Your task to perform on an android device: Open notification settings Image 0: 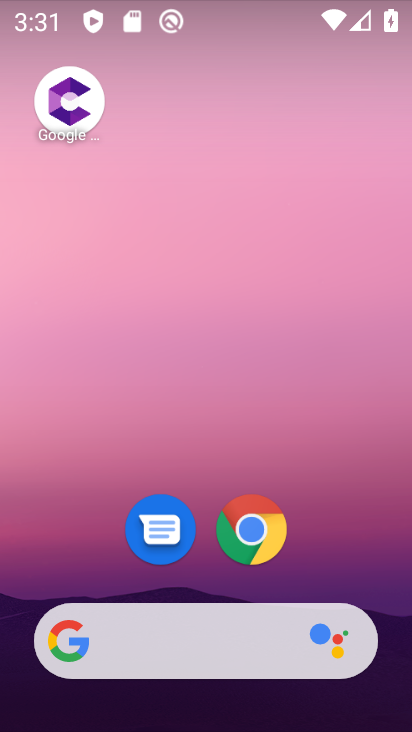
Step 0: drag from (213, 594) to (139, 11)
Your task to perform on an android device: Open notification settings Image 1: 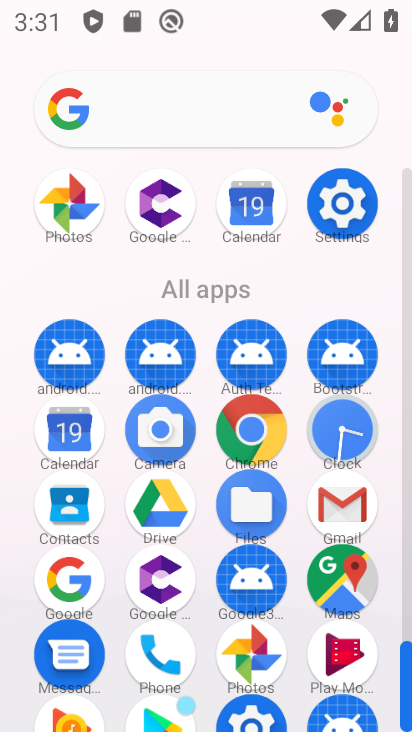
Step 1: click (329, 184)
Your task to perform on an android device: Open notification settings Image 2: 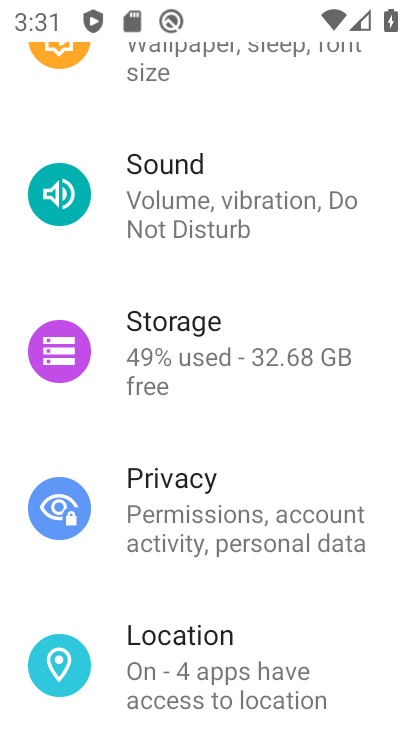
Step 2: drag from (232, 268) to (195, 695)
Your task to perform on an android device: Open notification settings Image 3: 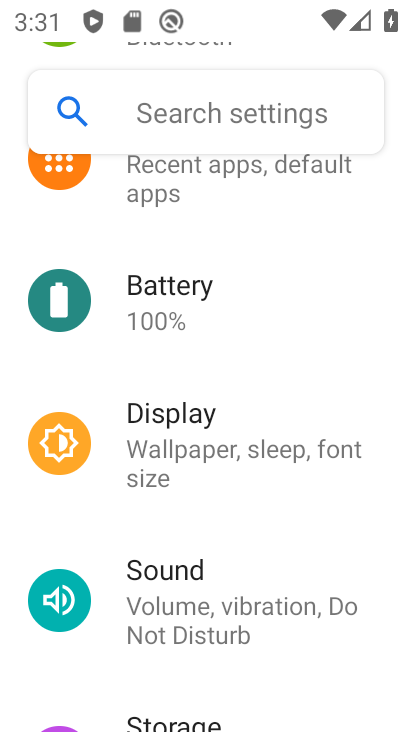
Step 3: drag from (189, 227) to (193, 619)
Your task to perform on an android device: Open notification settings Image 4: 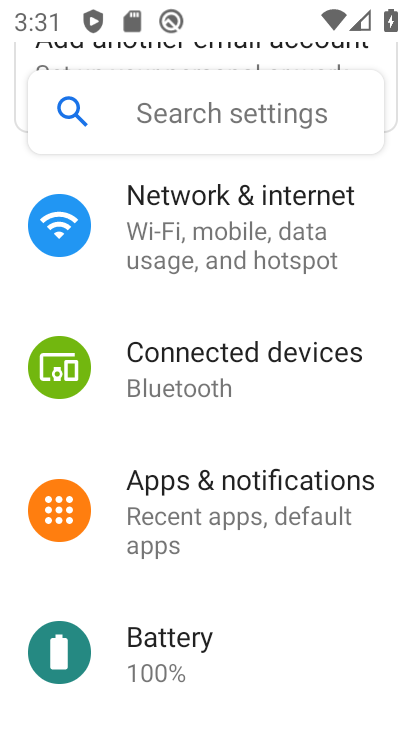
Step 4: click (210, 525)
Your task to perform on an android device: Open notification settings Image 5: 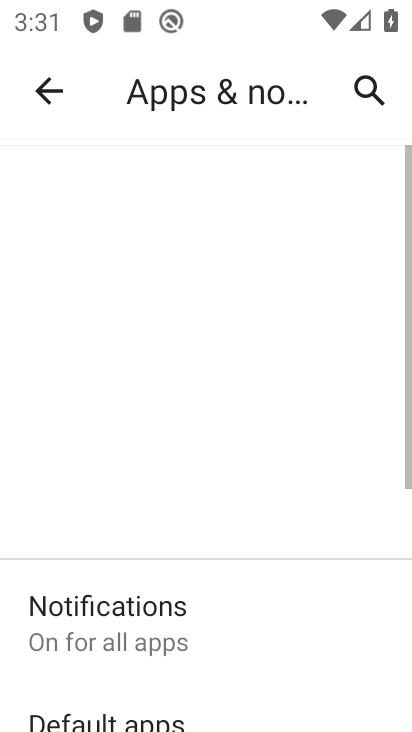
Step 5: click (118, 600)
Your task to perform on an android device: Open notification settings Image 6: 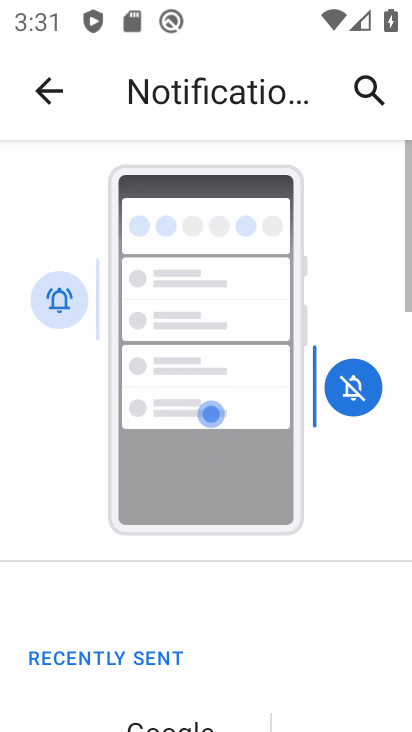
Step 6: task complete